Your task to perform on an android device: turn on sleep mode Image 0: 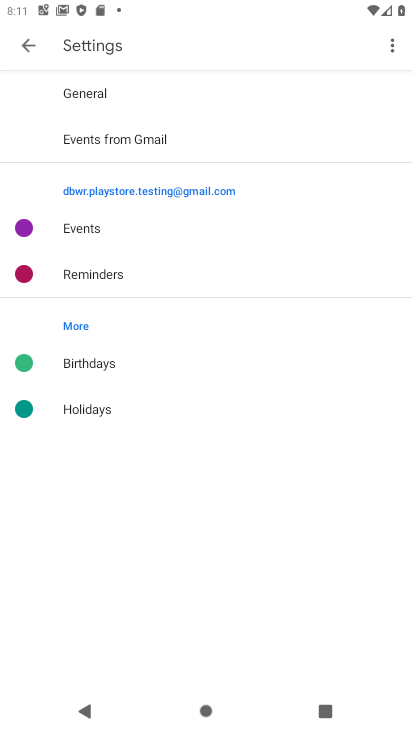
Step 0: press home button
Your task to perform on an android device: turn on sleep mode Image 1: 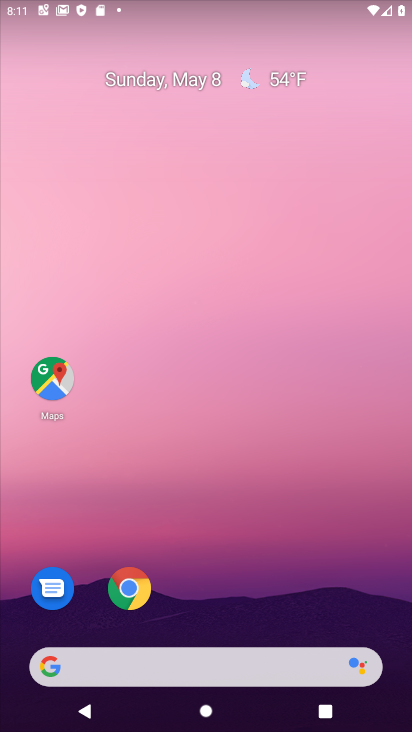
Step 1: drag from (328, 495) to (328, 531)
Your task to perform on an android device: turn on sleep mode Image 2: 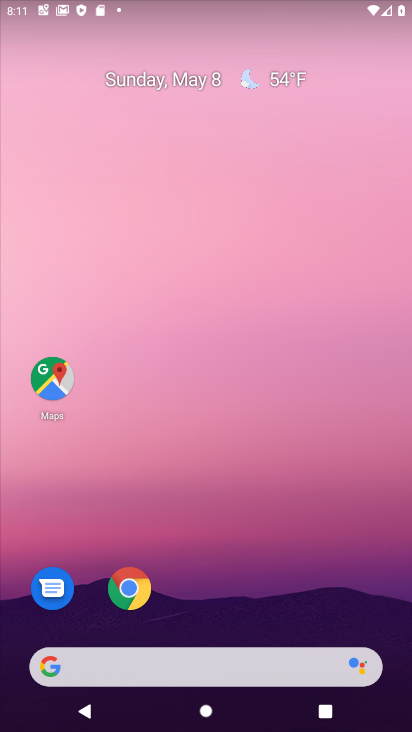
Step 2: drag from (315, 587) to (307, 60)
Your task to perform on an android device: turn on sleep mode Image 3: 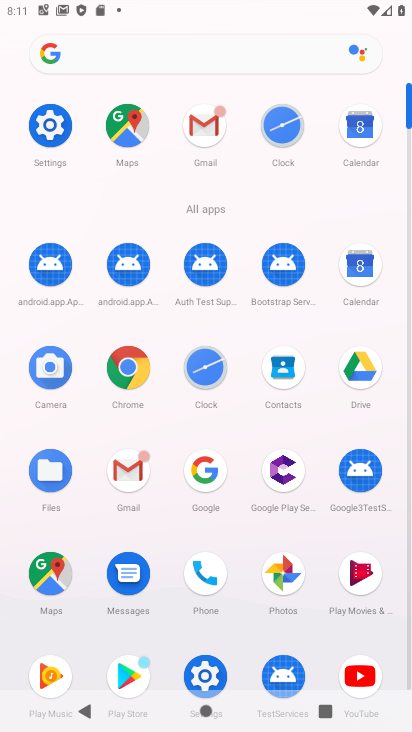
Step 3: click (55, 123)
Your task to perform on an android device: turn on sleep mode Image 4: 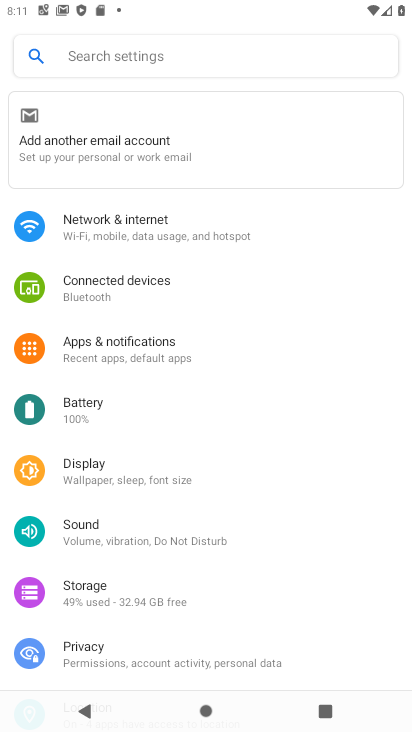
Step 4: drag from (285, 481) to (250, 221)
Your task to perform on an android device: turn on sleep mode Image 5: 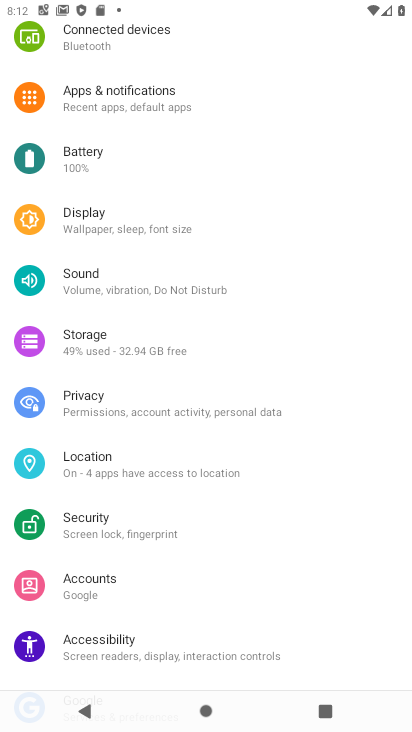
Step 5: click (129, 208)
Your task to perform on an android device: turn on sleep mode Image 6: 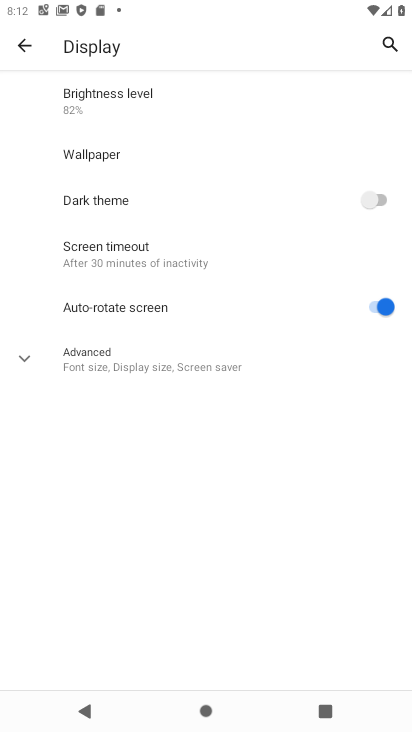
Step 6: click (133, 267)
Your task to perform on an android device: turn on sleep mode Image 7: 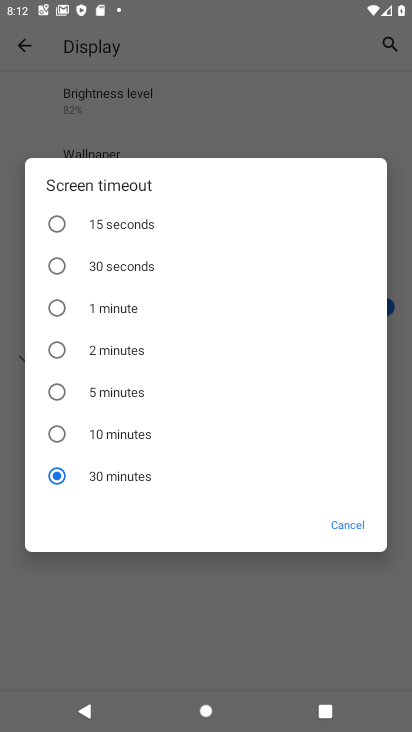
Step 7: drag from (196, 212) to (305, 85)
Your task to perform on an android device: turn on sleep mode Image 8: 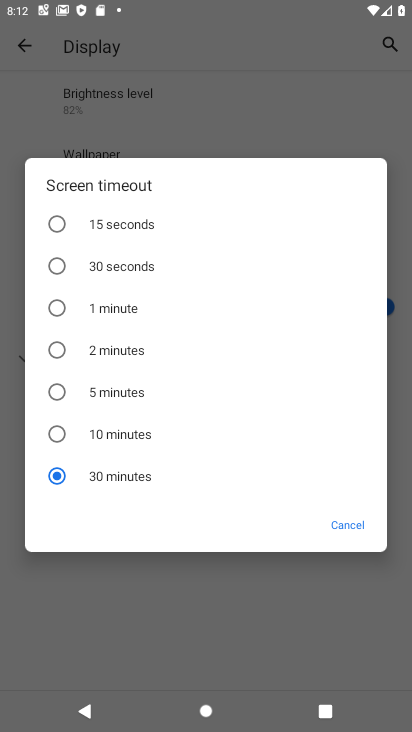
Step 8: click (349, 530)
Your task to perform on an android device: turn on sleep mode Image 9: 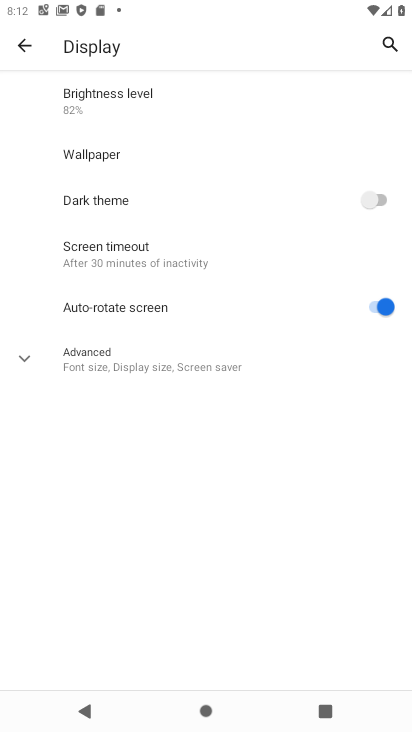
Step 9: task complete